Your task to perform on an android device: find snoozed emails in the gmail app Image 0: 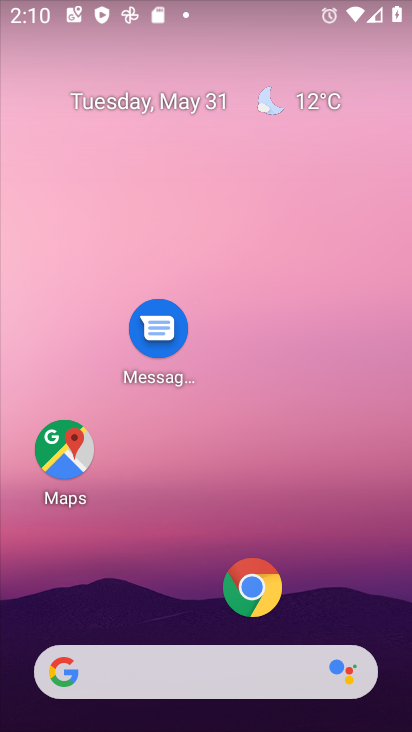
Step 0: drag from (179, 553) to (217, 35)
Your task to perform on an android device: find snoozed emails in the gmail app Image 1: 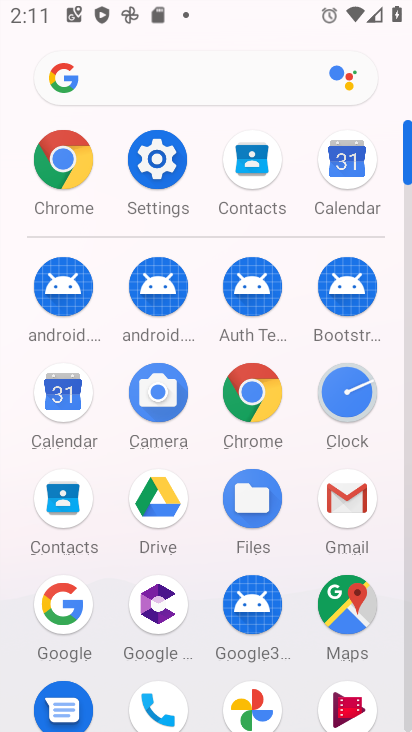
Step 1: click (338, 472)
Your task to perform on an android device: find snoozed emails in the gmail app Image 2: 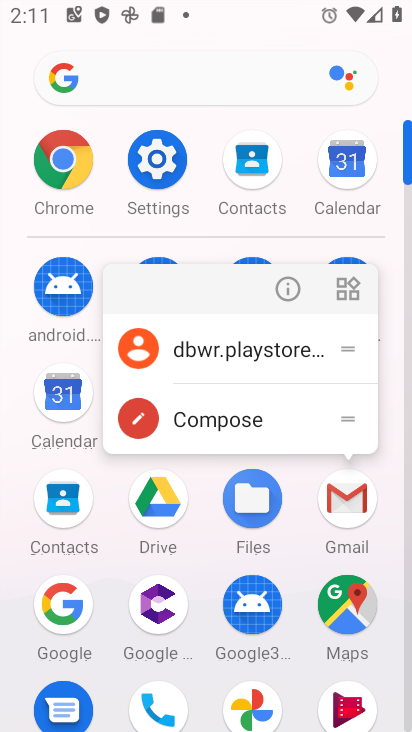
Step 2: click (281, 292)
Your task to perform on an android device: find snoozed emails in the gmail app Image 3: 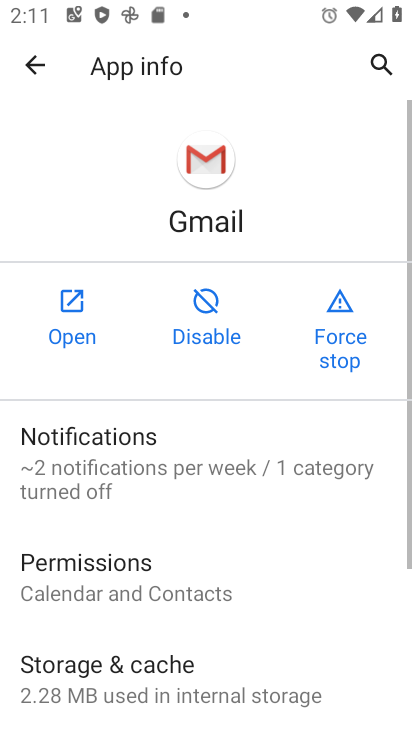
Step 3: click (73, 308)
Your task to perform on an android device: find snoozed emails in the gmail app Image 4: 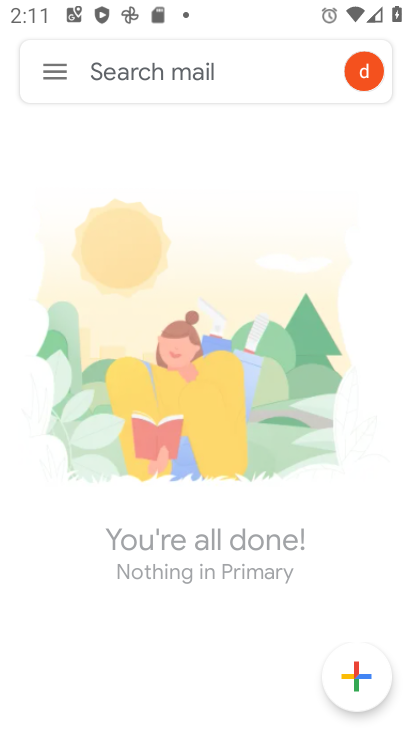
Step 4: click (43, 67)
Your task to perform on an android device: find snoozed emails in the gmail app Image 5: 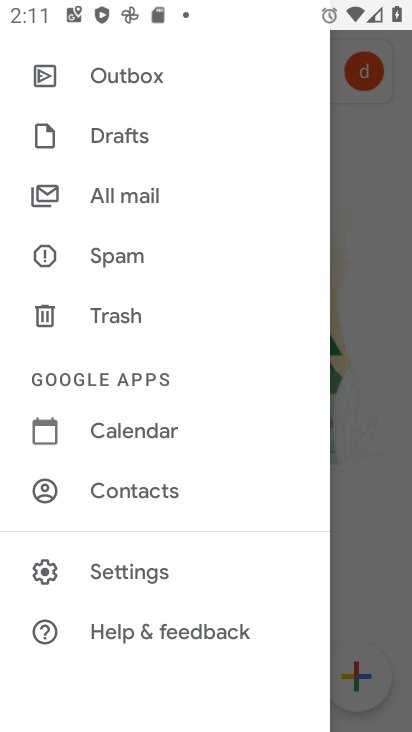
Step 5: drag from (106, 199) to (148, 661)
Your task to perform on an android device: find snoozed emails in the gmail app Image 6: 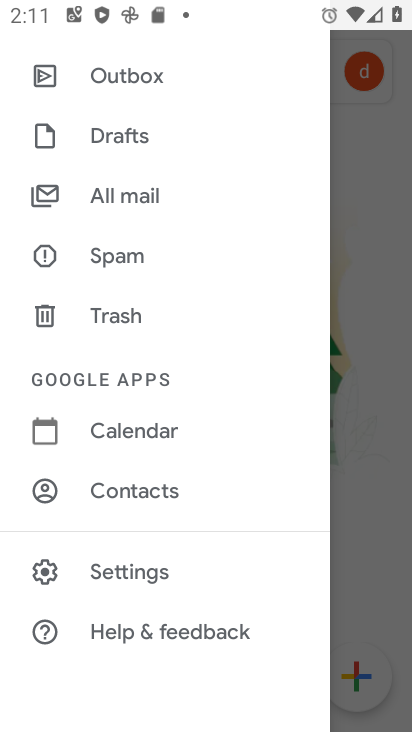
Step 6: drag from (86, 107) to (155, 559)
Your task to perform on an android device: find snoozed emails in the gmail app Image 7: 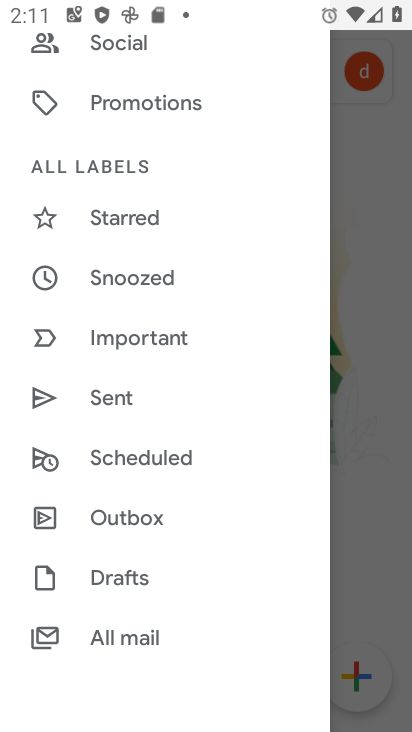
Step 7: click (103, 273)
Your task to perform on an android device: find snoozed emails in the gmail app Image 8: 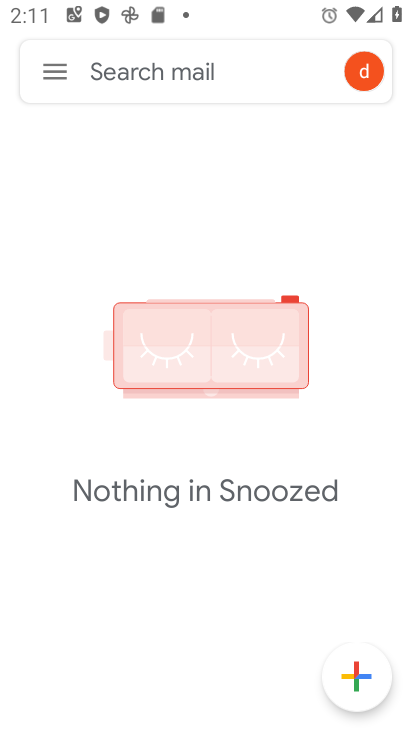
Step 8: task complete